Your task to perform on an android device: toggle sleep mode Image 0: 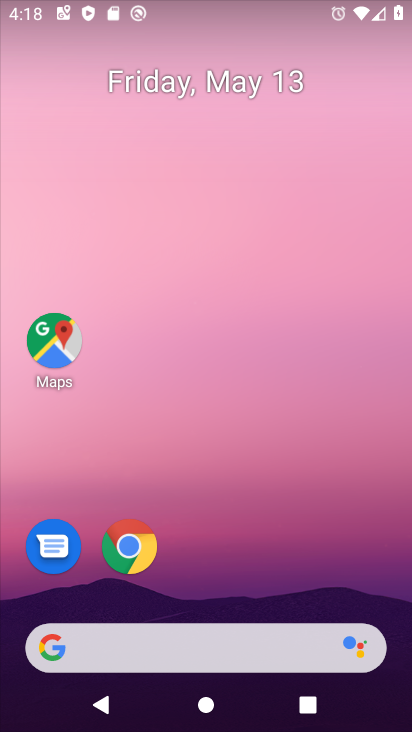
Step 0: drag from (234, 574) to (287, 13)
Your task to perform on an android device: toggle sleep mode Image 1: 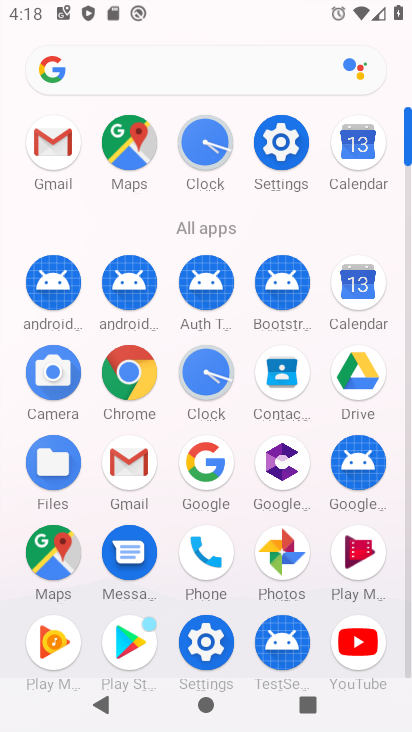
Step 1: click (279, 162)
Your task to perform on an android device: toggle sleep mode Image 2: 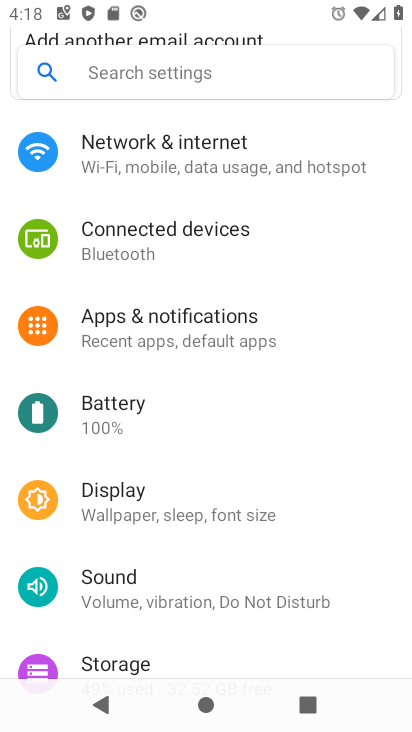
Step 2: click (224, 75)
Your task to perform on an android device: toggle sleep mode Image 3: 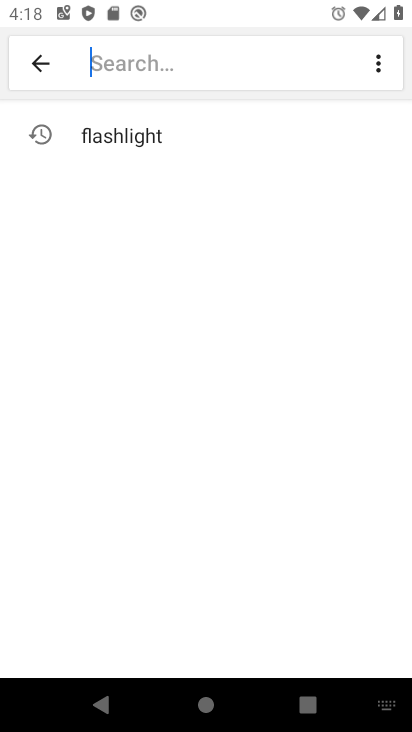
Step 3: type "sleep mode"
Your task to perform on an android device: toggle sleep mode Image 4: 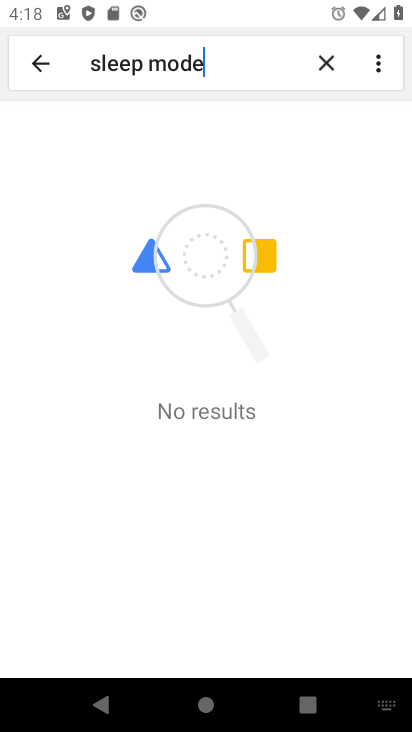
Step 4: task complete